Your task to perform on an android device: turn off location Image 0: 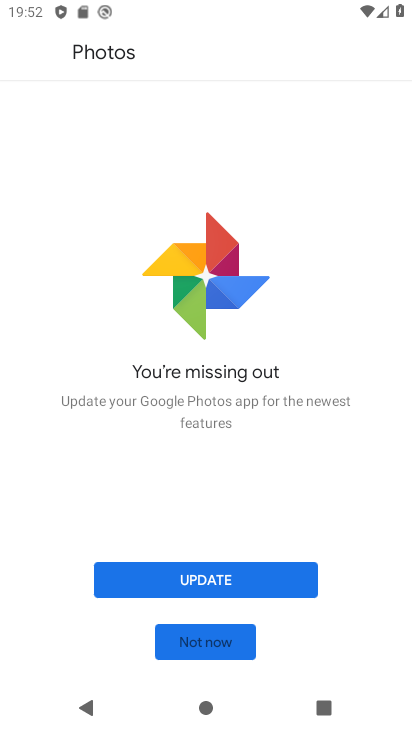
Step 0: press home button
Your task to perform on an android device: turn off location Image 1: 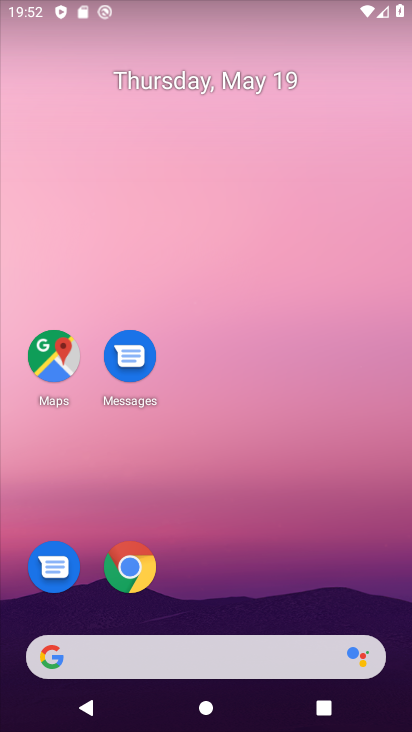
Step 1: drag from (197, 636) to (113, 63)
Your task to perform on an android device: turn off location Image 2: 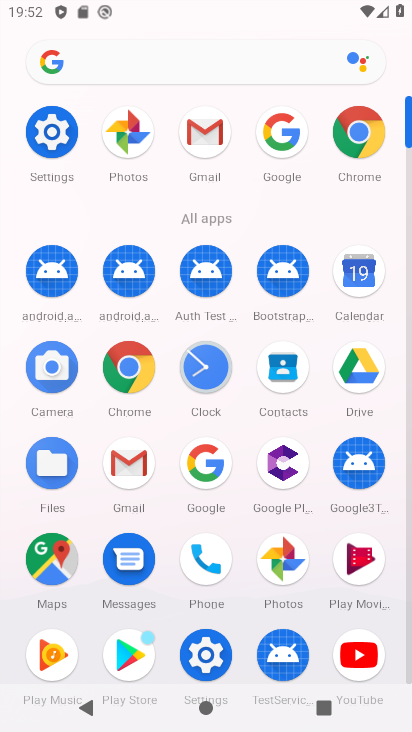
Step 2: click (54, 145)
Your task to perform on an android device: turn off location Image 3: 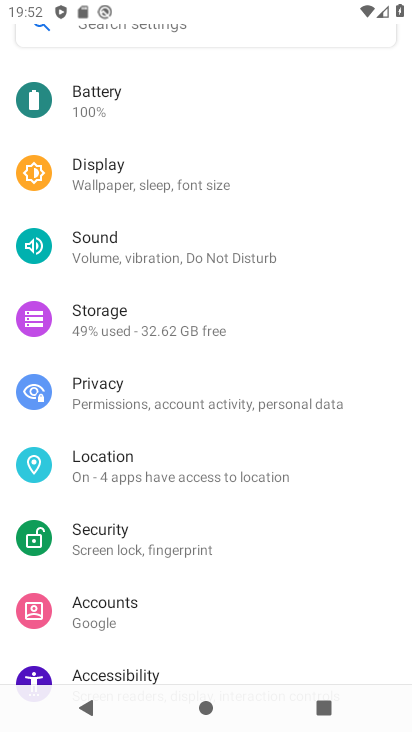
Step 3: click (124, 467)
Your task to perform on an android device: turn off location Image 4: 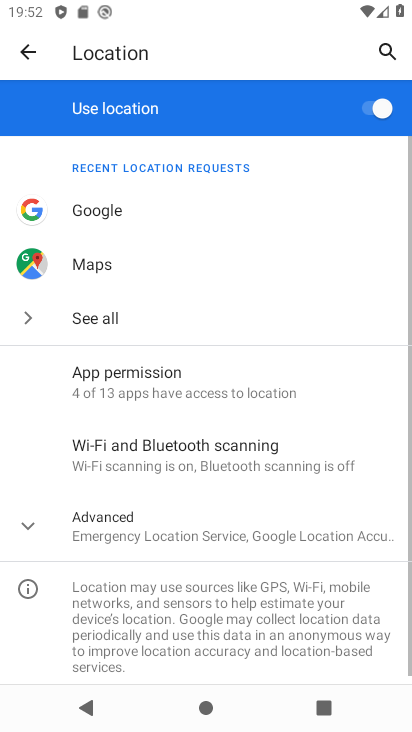
Step 4: click (372, 109)
Your task to perform on an android device: turn off location Image 5: 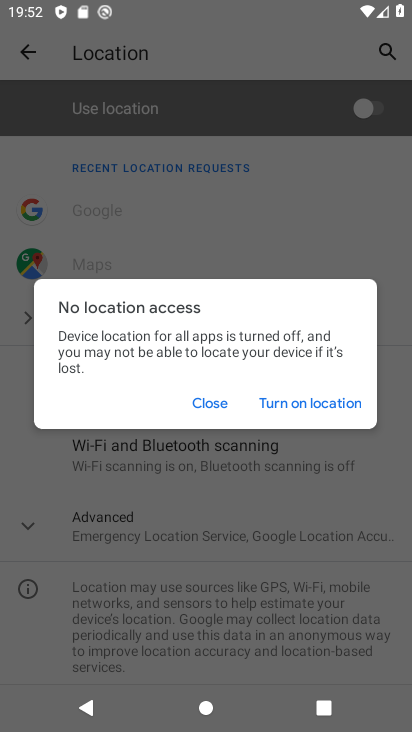
Step 5: click (200, 405)
Your task to perform on an android device: turn off location Image 6: 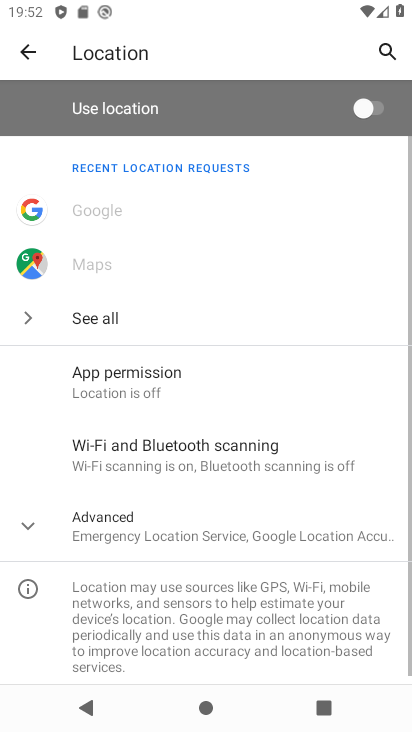
Step 6: task complete